Your task to perform on an android device: remove spam from my inbox in the gmail app Image 0: 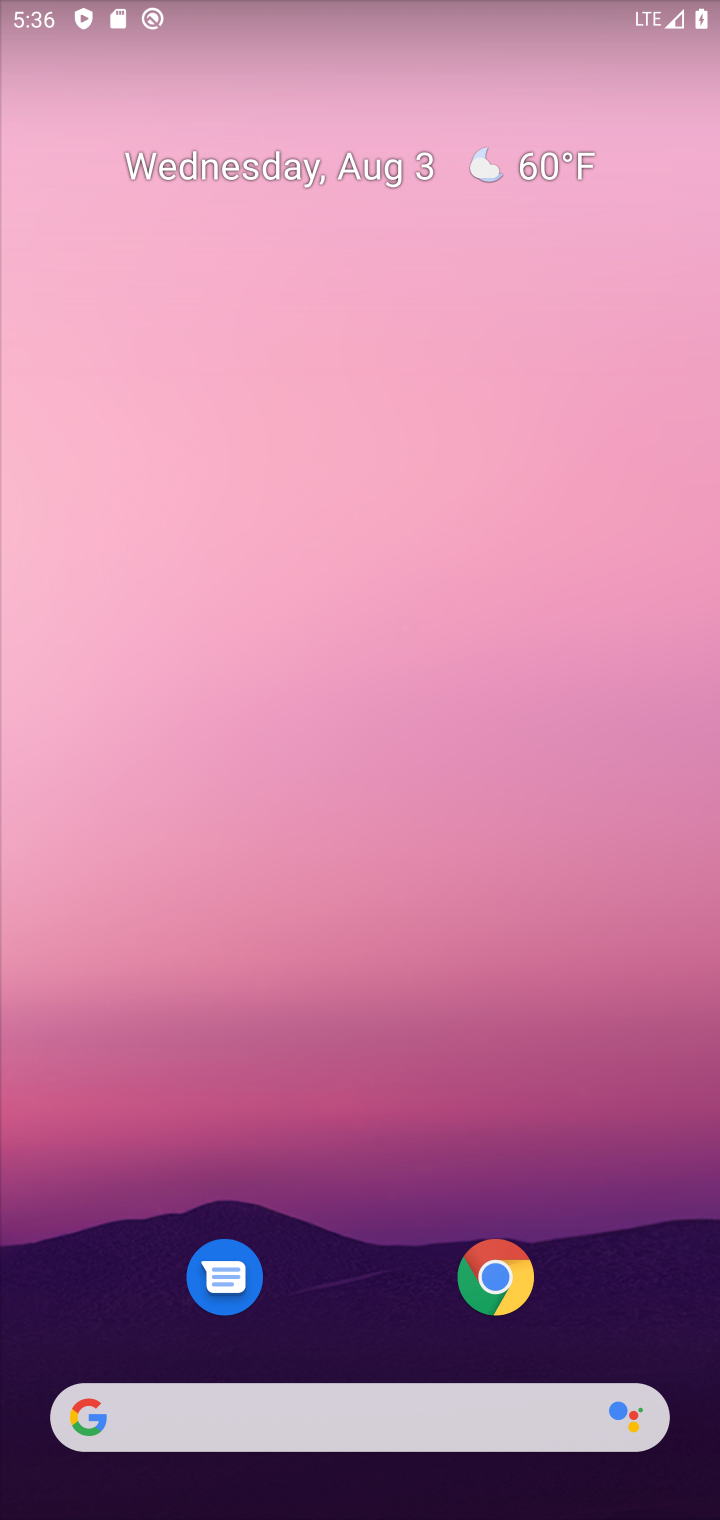
Step 0: drag from (370, 1238) to (508, 19)
Your task to perform on an android device: remove spam from my inbox in the gmail app Image 1: 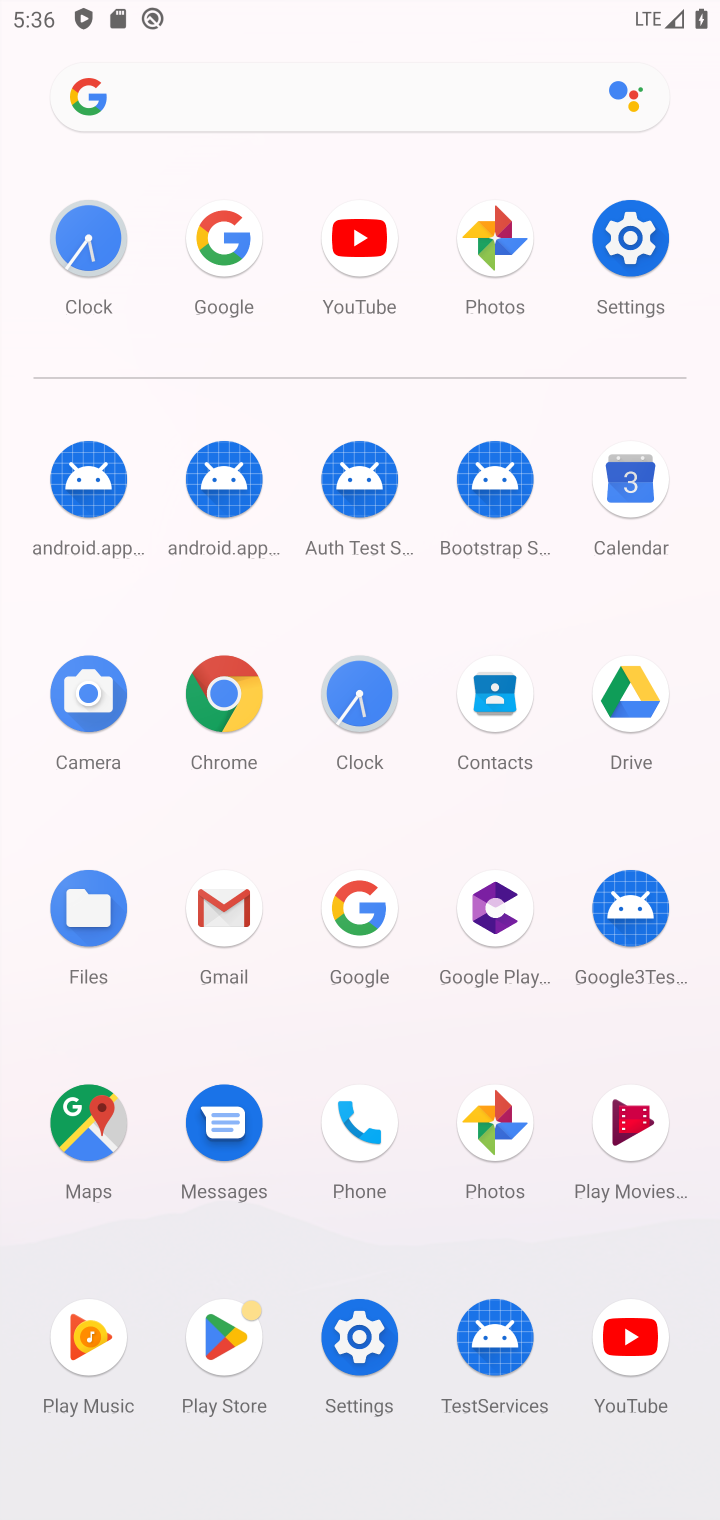
Step 1: click (251, 913)
Your task to perform on an android device: remove spam from my inbox in the gmail app Image 2: 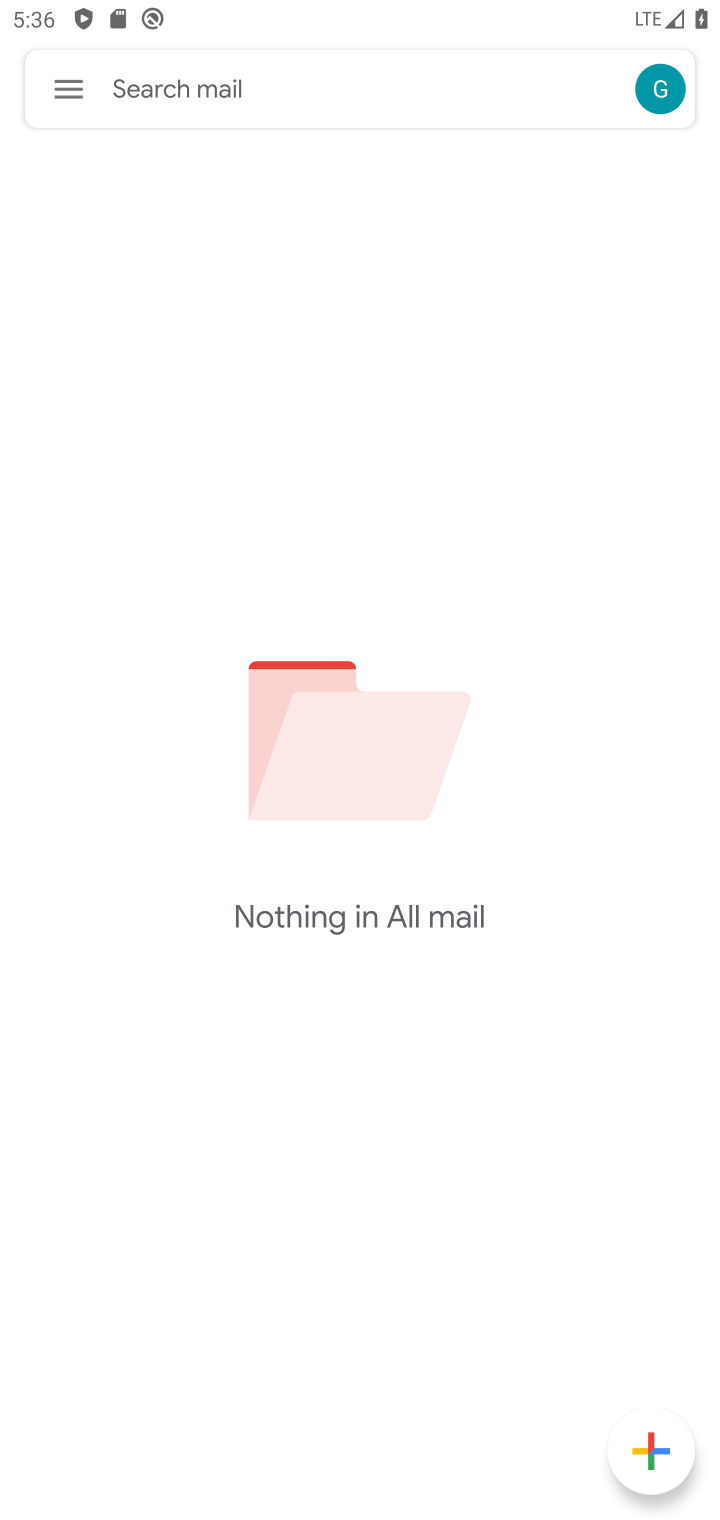
Step 2: click (68, 76)
Your task to perform on an android device: remove spam from my inbox in the gmail app Image 3: 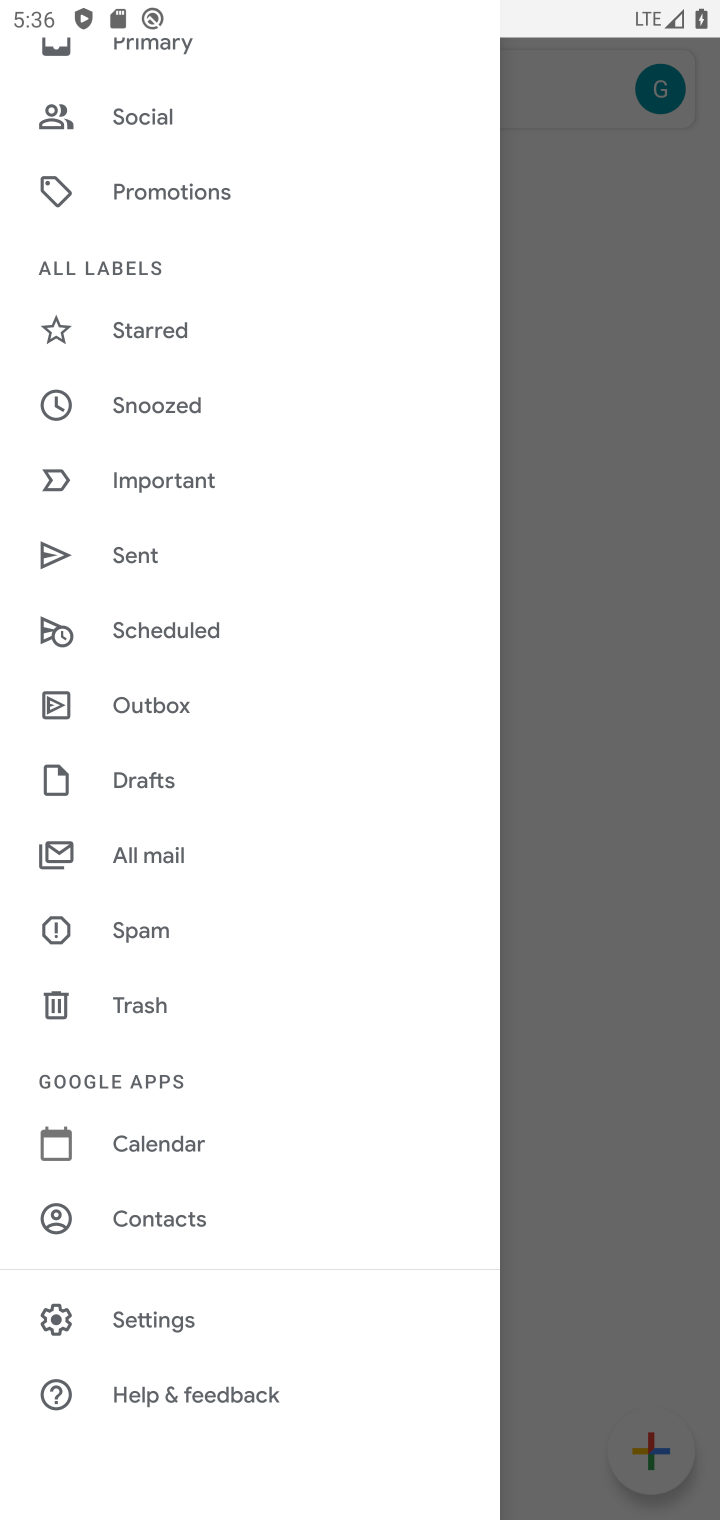
Step 3: click (174, 926)
Your task to perform on an android device: remove spam from my inbox in the gmail app Image 4: 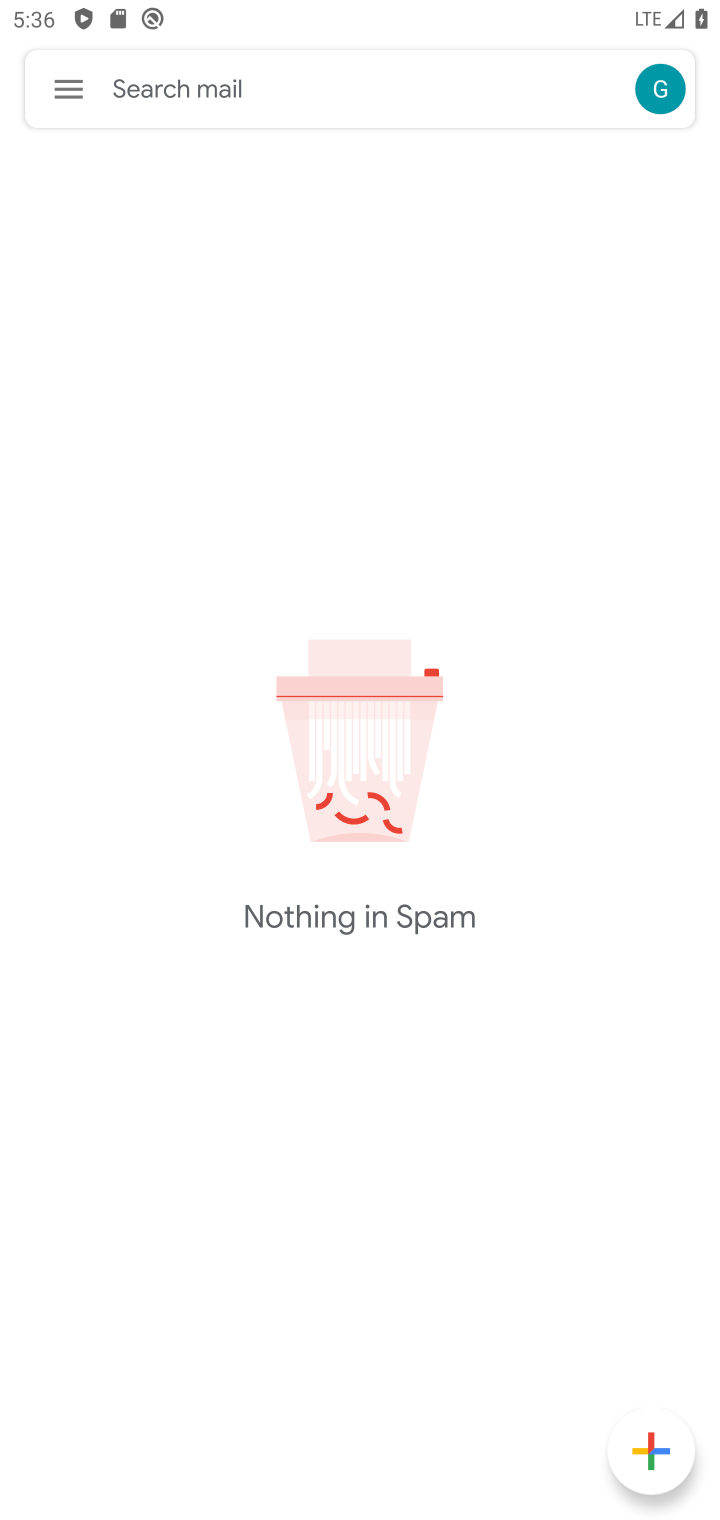
Step 4: task complete